Your task to perform on an android device: Go to CNN.com Image 0: 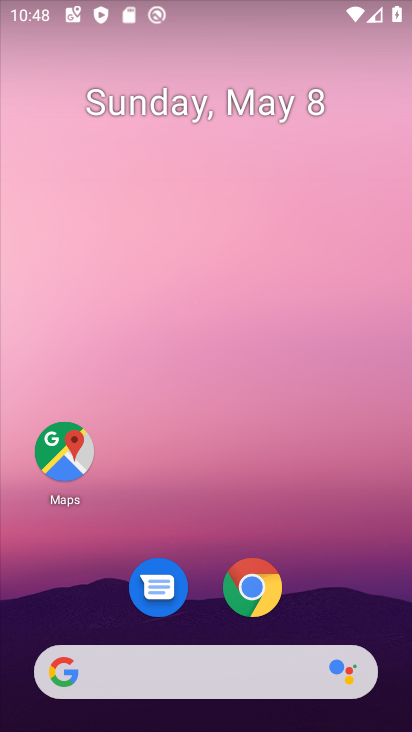
Step 0: drag from (331, 591) to (115, 15)
Your task to perform on an android device: Go to CNN.com Image 1: 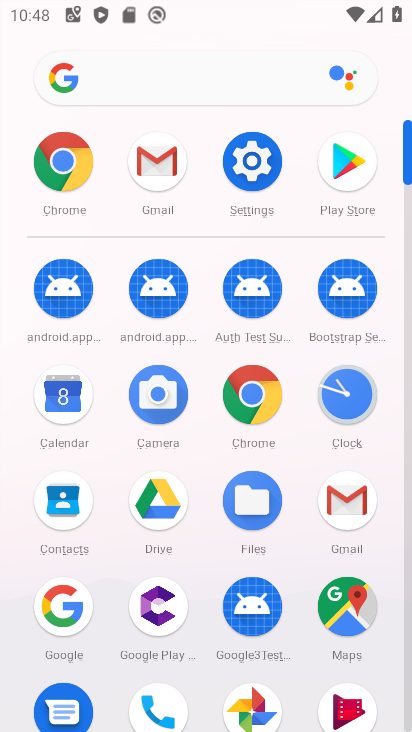
Step 1: click (256, 402)
Your task to perform on an android device: Go to CNN.com Image 2: 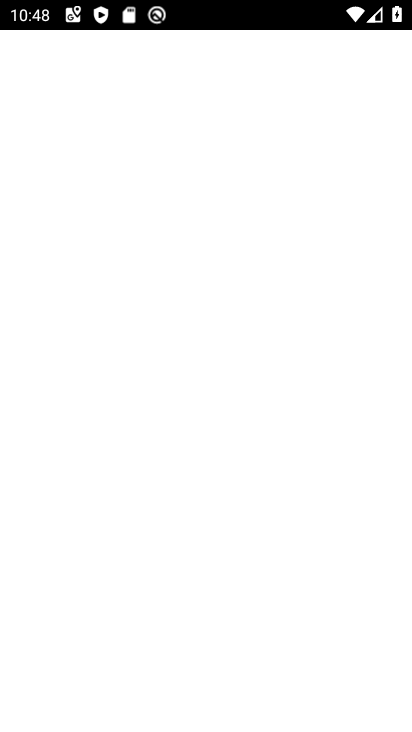
Step 2: click (255, 402)
Your task to perform on an android device: Go to CNN.com Image 3: 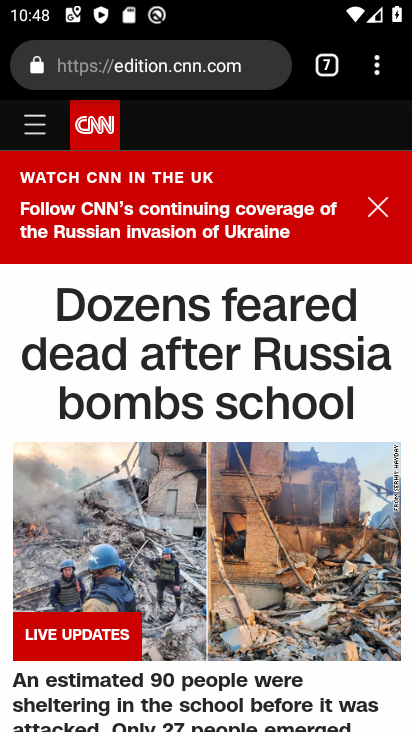
Step 3: drag from (375, 60) to (126, 125)
Your task to perform on an android device: Go to CNN.com Image 4: 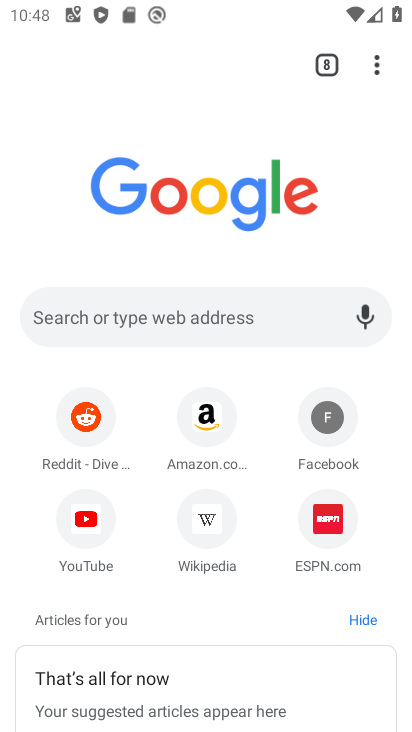
Step 4: click (67, 328)
Your task to perform on an android device: Go to CNN.com Image 5: 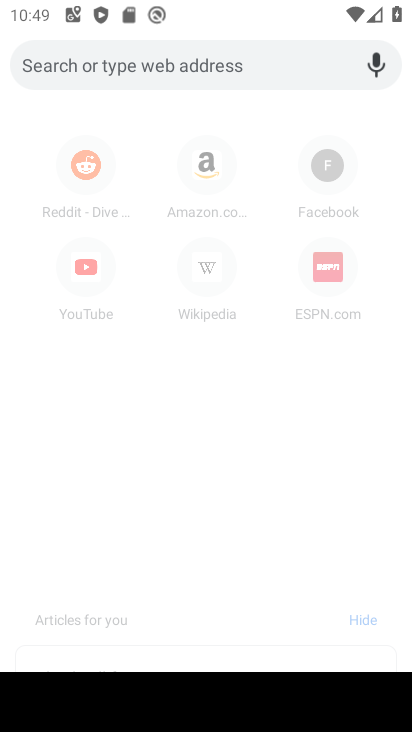
Step 5: type "cnn.com"
Your task to perform on an android device: Go to CNN.com Image 6: 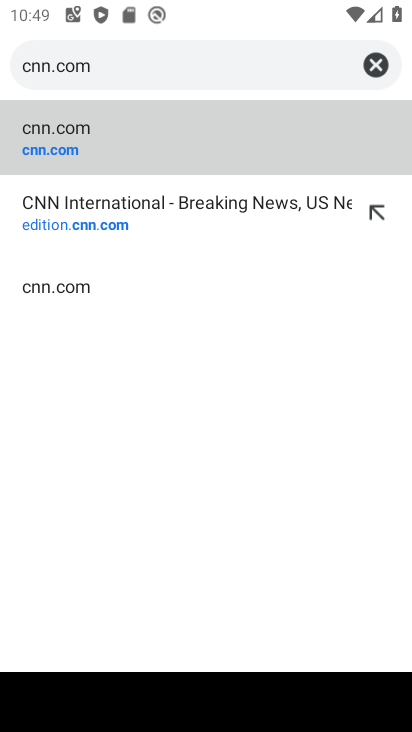
Step 6: click (69, 147)
Your task to perform on an android device: Go to CNN.com Image 7: 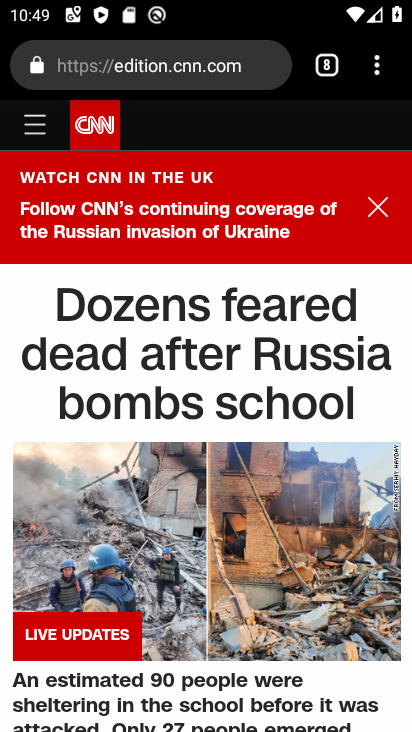
Step 7: drag from (376, 69) to (126, 121)
Your task to perform on an android device: Go to CNN.com Image 8: 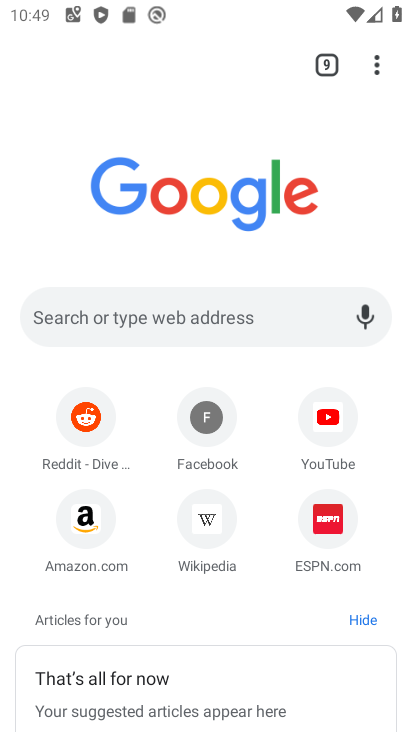
Step 8: click (71, 308)
Your task to perform on an android device: Go to CNN.com Image 9: 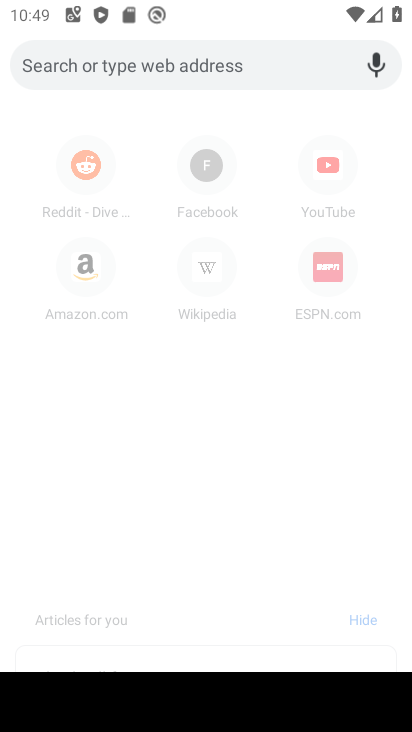
Step 9: type "cnn.com"
Your task to perform on an android device: Go to CNN.com Image 10: 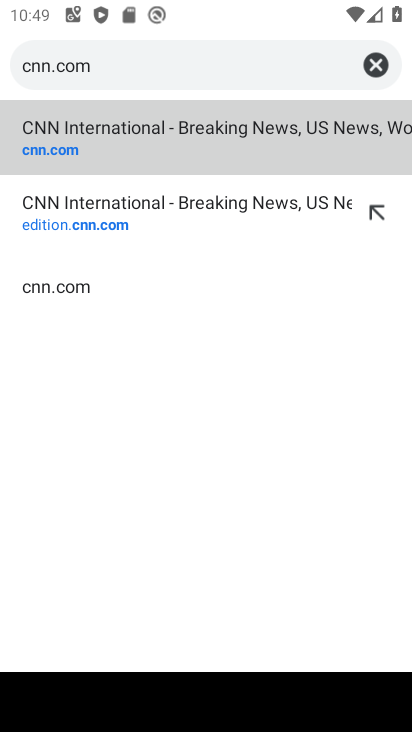
Step 10: click (75, 140)
Your task to perform on an android device: Go to CNN.com Image 11: 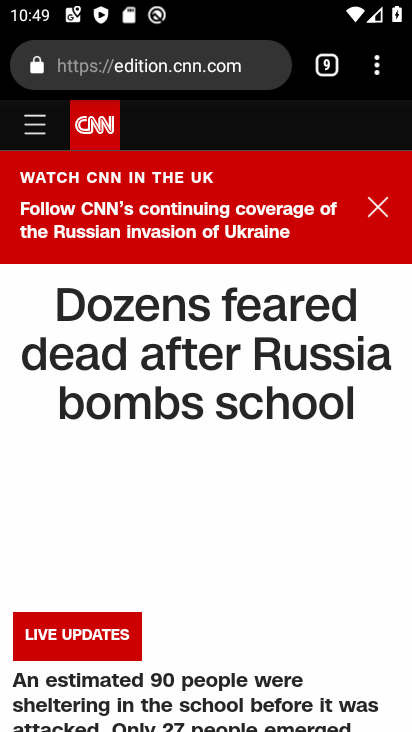
Step 11: task complete